Your task to perform on an android device: Open Chrome and go to settings Image 0: 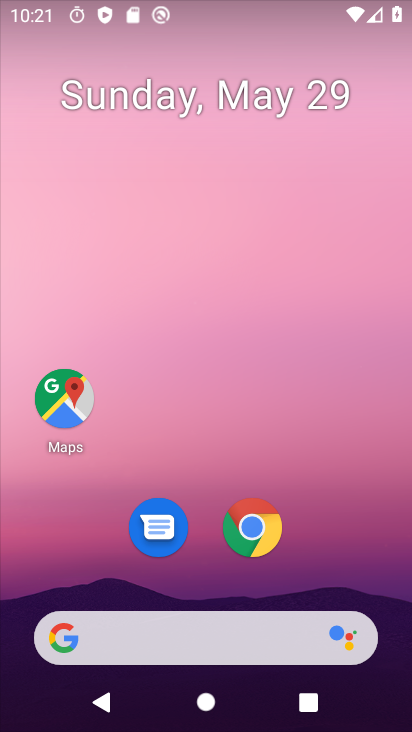
Step 0: click (257, 528)
Your task to perform on an android device: Open Chrome and go to settings Image 1: 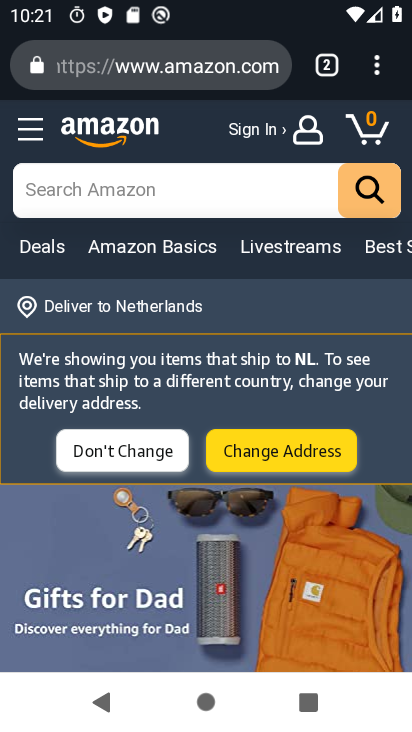
Step 1: click (378, 50)
Your task to perform on an android device: Open Chrome and go to settings Image 2: 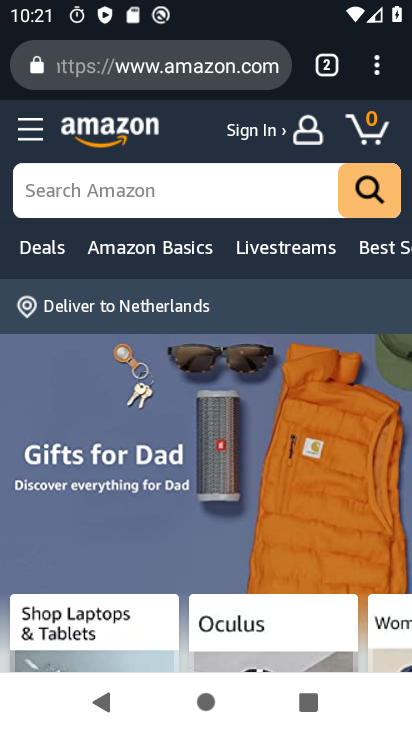
Step 2: task complete